Your task to perform on an android device: What's the weather going to be this weekend? Image 0: 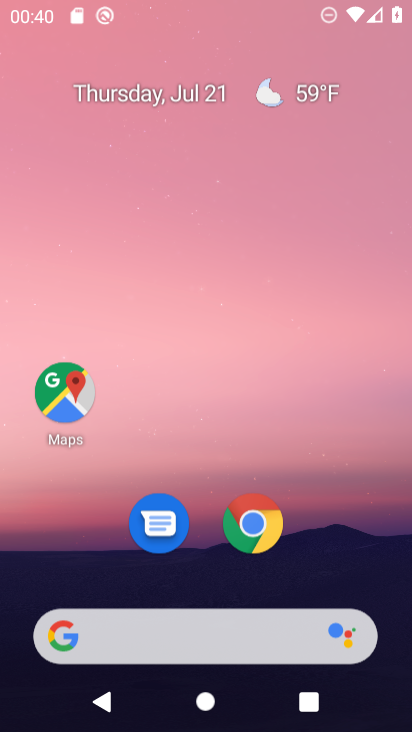
Step 0: press home button
Your task to perform on an android device: What's the weather going to be this weekend? Image 1: 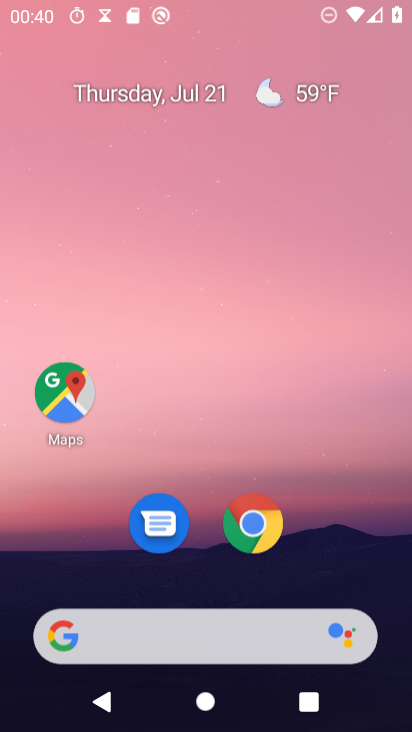
Step 1: click (187, 646)
Your task to perform on an android device: What's the weather going to be this weekend? Image 2: 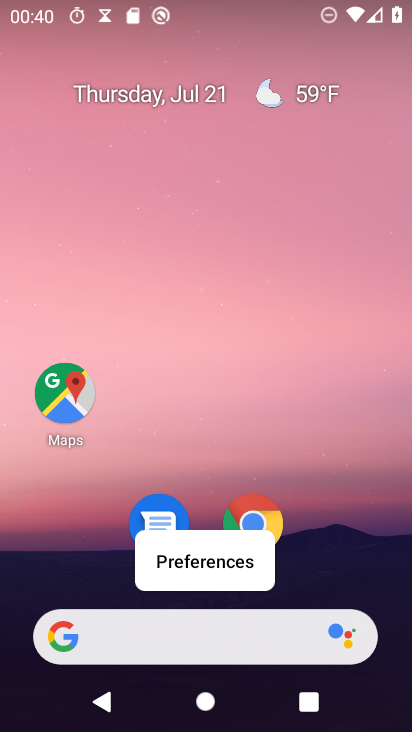
Step 2: click (197, 630)
Your task to perform on an android device: What's the weather going to be this weekend? Image 3: 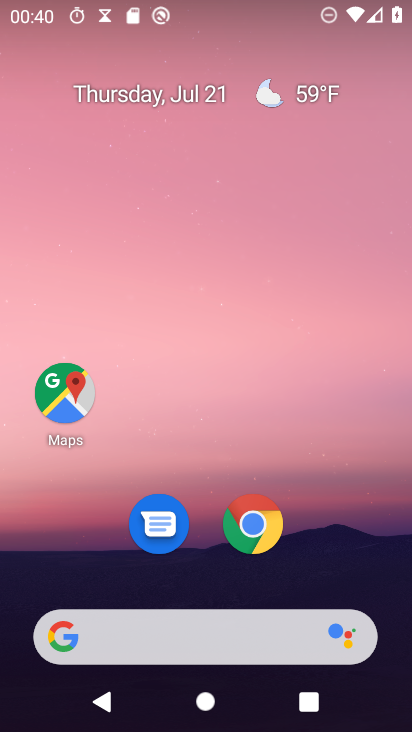
Step 3: click (145, 640)
Your task to perform on an android device: What's the weather going to be this weekend? Image 4: 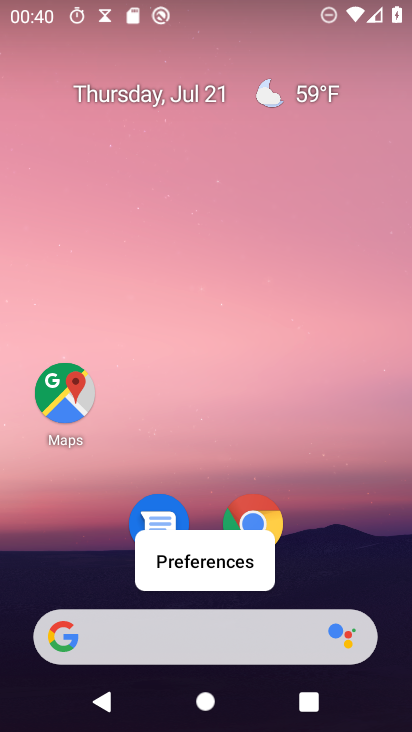
Step 4: click (160, 627)
Your task to perform on an android device: What's the weather going to be this weekend? Image 5: 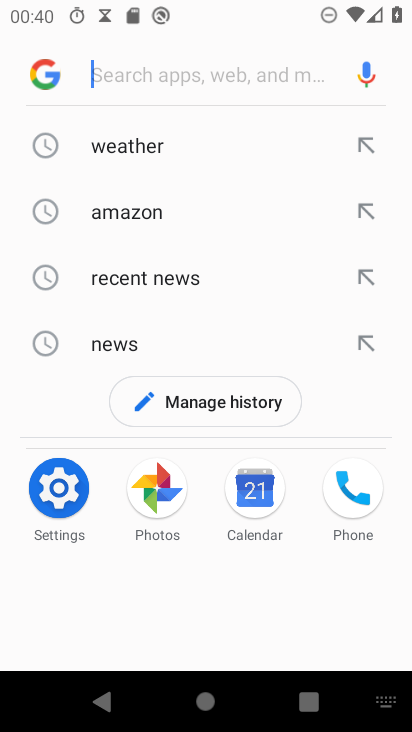
Step 5: click (148, 143)
Your task to perform on an android device: What's the weather going to be this weekend? Image 6: 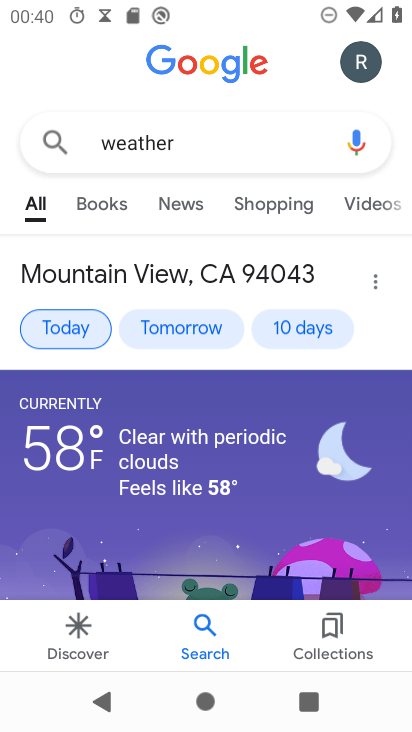
Step 6: click (323, 325)
Your task to perform on an android device: What's the weather going to be this weekend? Image 7: 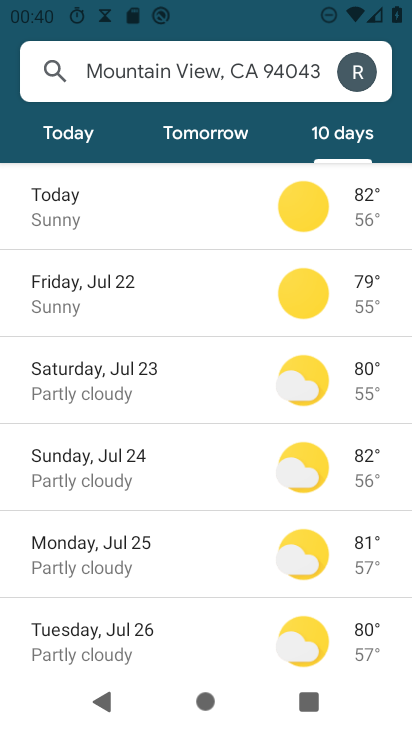
Step 7: click (91, 370)
Your task to perform on an android device: What's the weather going to be this weekend? Image 8: 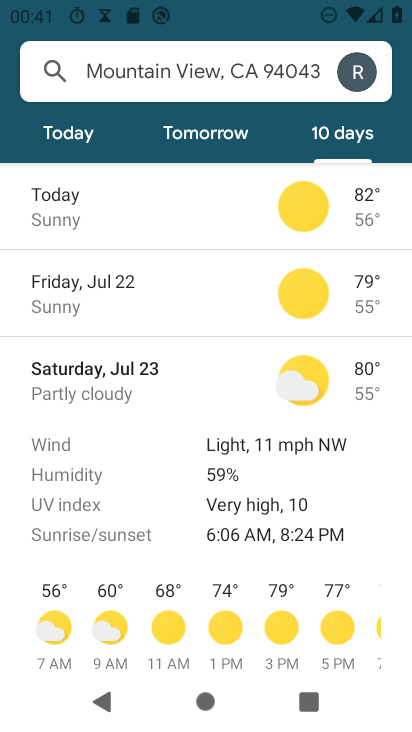
Step 8: task complete